Your task to perform on an android device: turn off notifications in google photos Image 0: 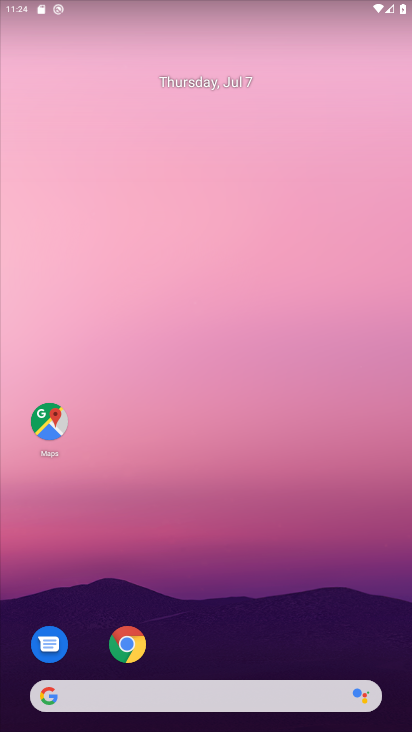
Step 0: click (73, 699)
Your task to perform on an android device: turn off notifications in google photos Image 1: 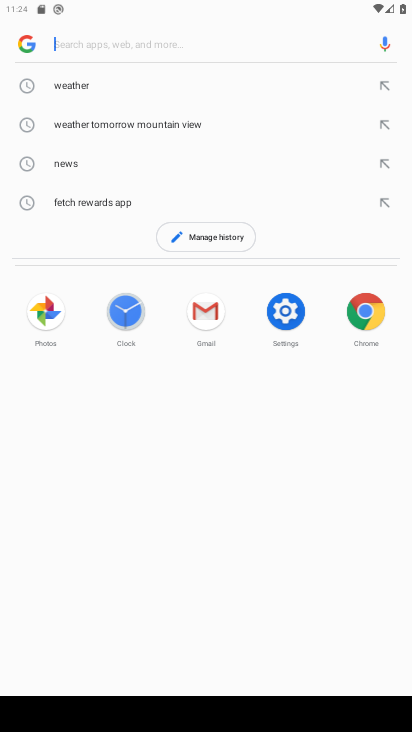
Step 1: press home button
Your task to perform on an android device: turn off notifications in google photos Image 2: 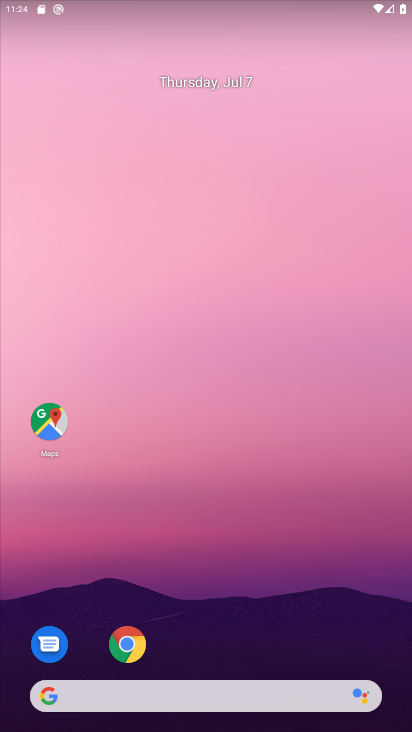
Step 2: drag from (19, 708) to (164, 226)
Your task to perform on an android device: turn off notifications in google photos Image 3: 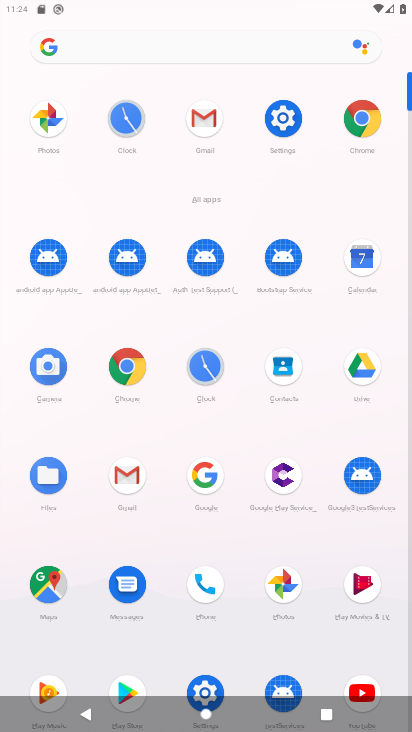
Step 3: click (278, 583)
Your task to perform on an android device: turn off notifications in google photos Image 4: 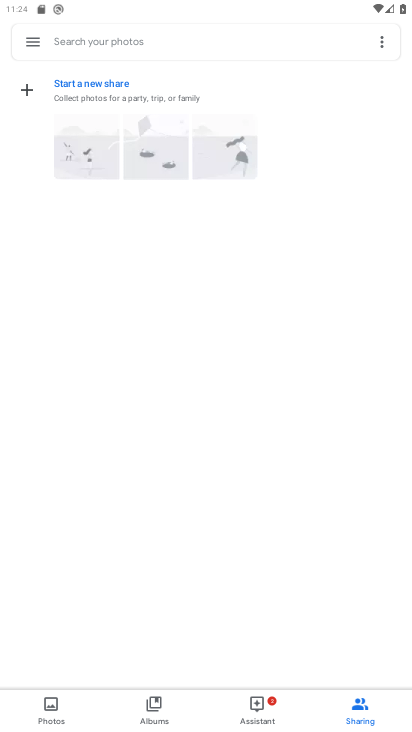
Step 4: click (31, 37)
Your task to perform on an android device: turn off notifications in google photos Image 5: 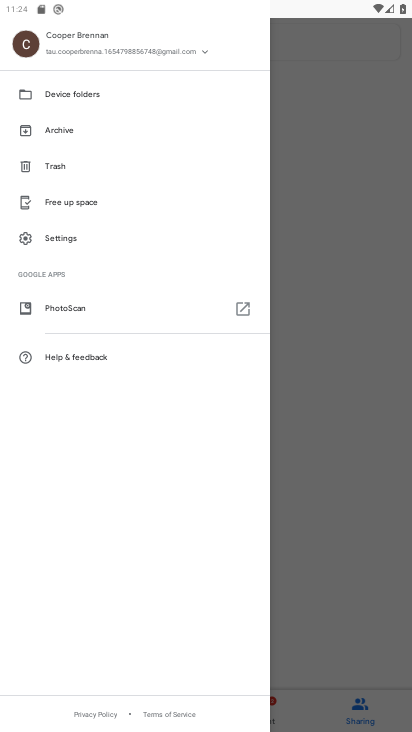
Step 5: click (77, 93)
Your task to perform on an android device: turn off notifications in google photos Image 6: 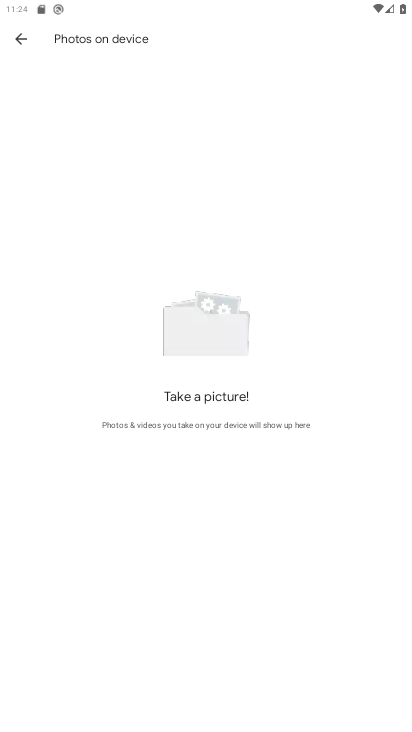
Step 6: click (16, 37)
Your task to perform on an android device: turn off notifications in google photos Image 7: 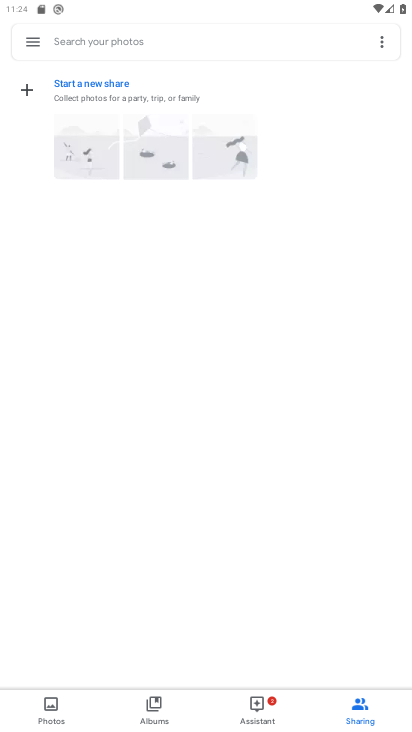
Step 7: click (31, 40)
Your task to perform on an android device: turn off notifications in google photos Image 8: 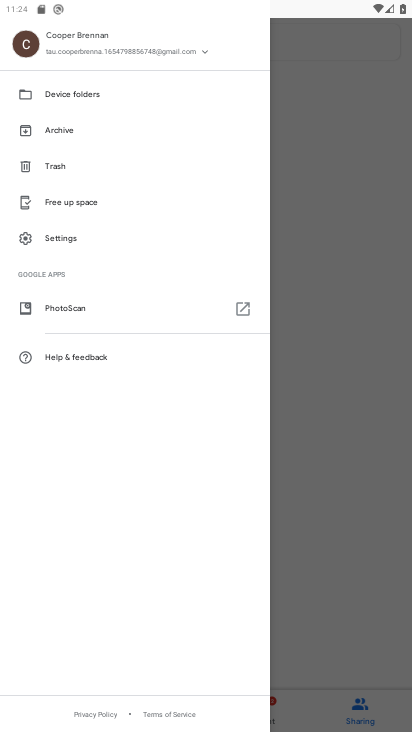
Step 8: click (62, 238)
Your task to perform on an android device: turn off notifications in google photos Image 9: 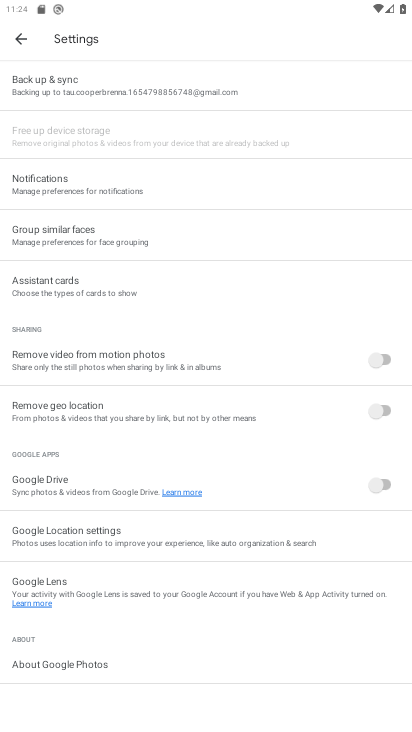
Step 9: click (59, 180)
Your task to perform on an android device: turn off notifications in google photos Image 10: 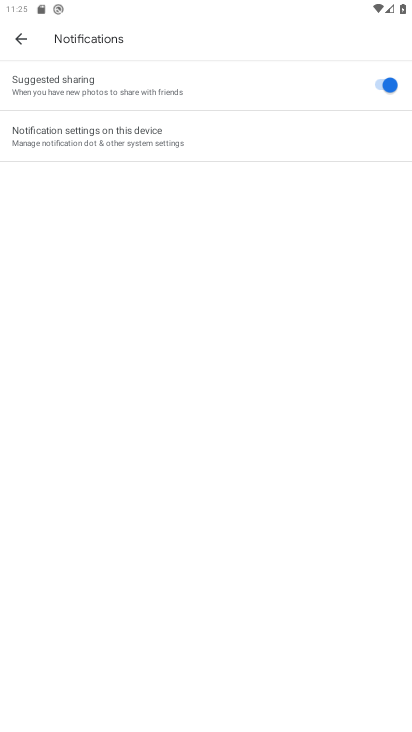
Step 10: click (128, 139)
Your task to perform on an android device: turn off notifications in google photos Image 11: 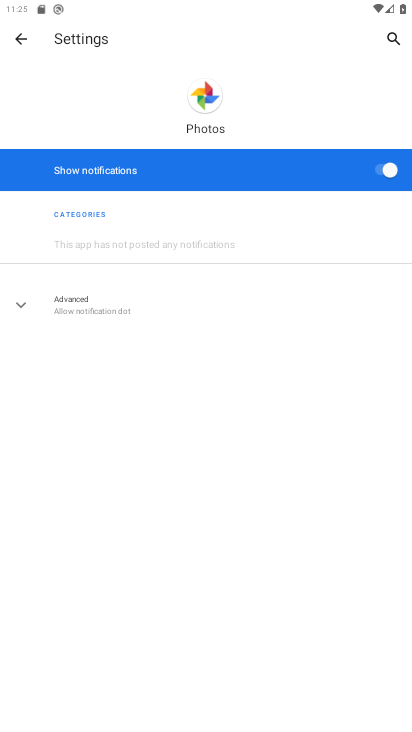
Step 11: click (393, 171)
Your task to perform on an android device: turn off notifications in google photos Image 12: 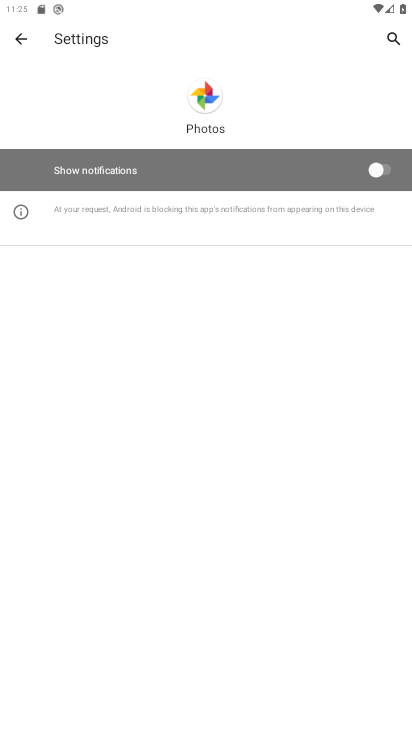
Step 12: task complete